Your task to perform on an android device: snooze an email in the gmail app Image 0: 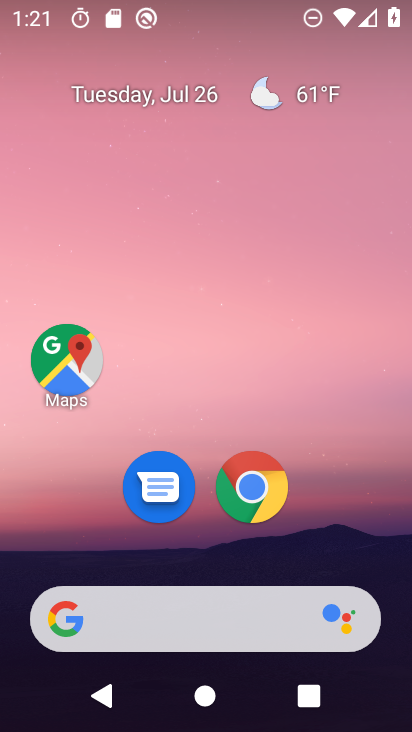
Step 0: drag from (95, 548) to (233, 42)
Your task to perform on an android device: snooze an email in the gmail app Image 1: 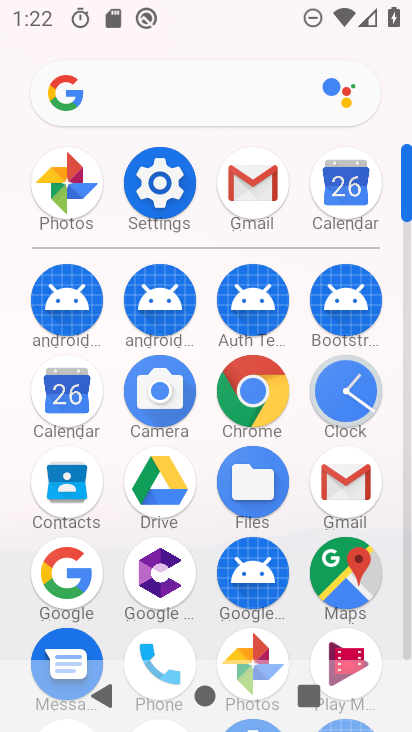
Step 1: click (254, 175)
Your task to perform on an android device: snooze an email in the gmail app Image 2: 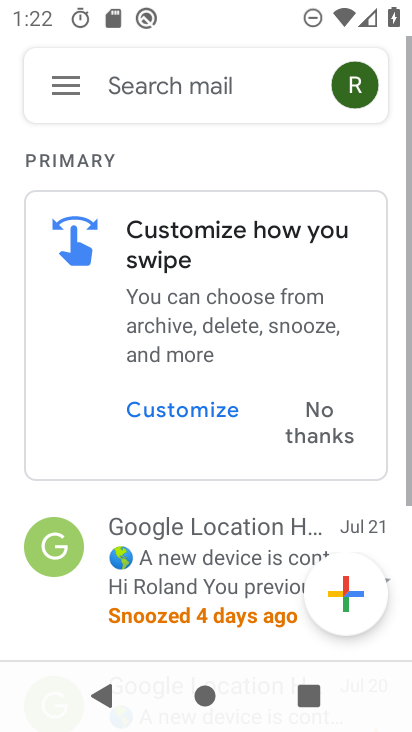
Step 2: drag from (186, 551) to (245, 160)
Your task to perform on an android device: snooze an email in the gmail app Image 3: 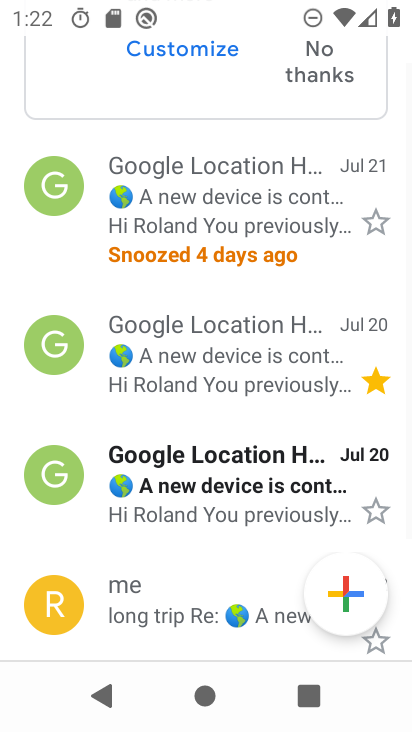
Step 3: click (171, 349)
Your task to perform on an android device: snooze an email in the gmail app Image 4: 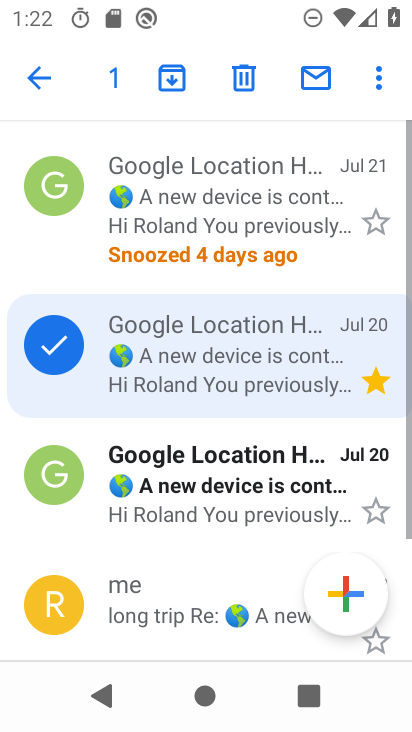
Step 4: click (379, 73)
Your task to perform on an android device: snooze an email in the gmail app Image 5: 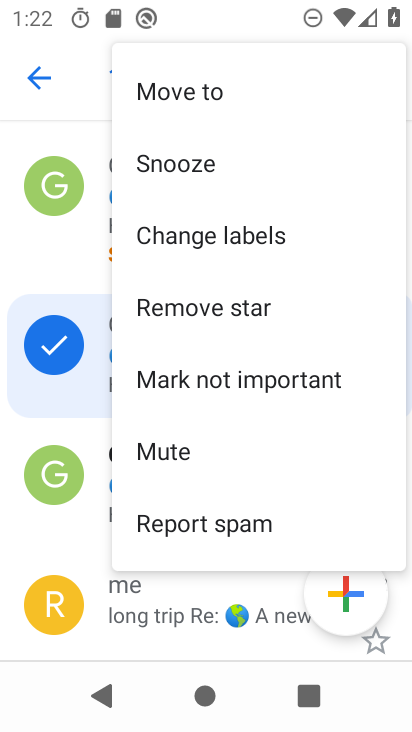
Step 5: click (205, 163)
Your task to perform on an android device: snooze an email in the gmail app Image 6: 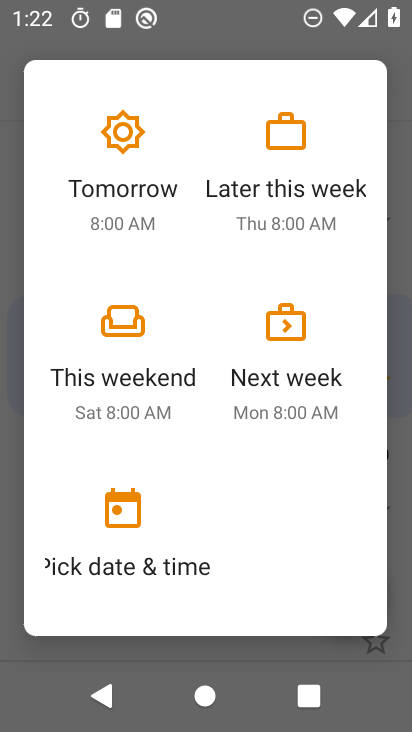
Step 6: click (96, 184)
Your task to perform on an android device: snooze an email in the gmail app Image 7: 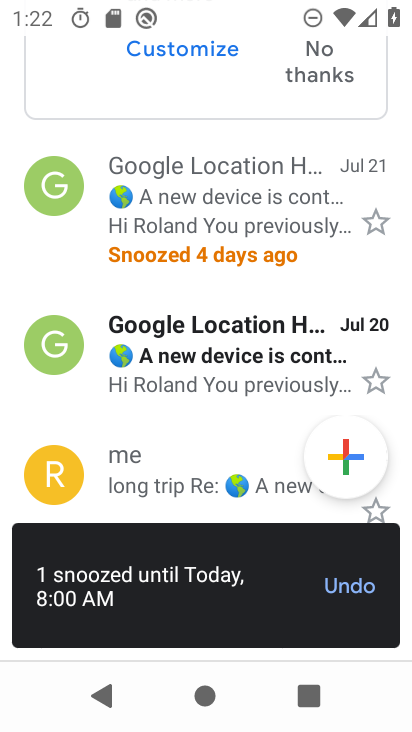
Step 7: task complete